Your task to perform on an android device: open chrome privacy settings Image 0: 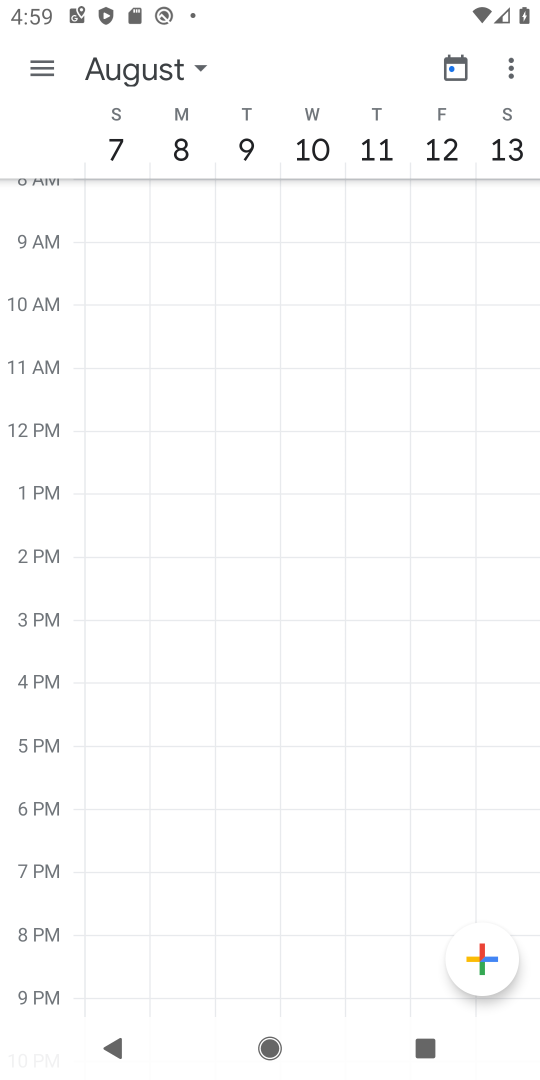
Step 0: press home button
Your task to perform on an android device: open chrome privacy settings Image 1: 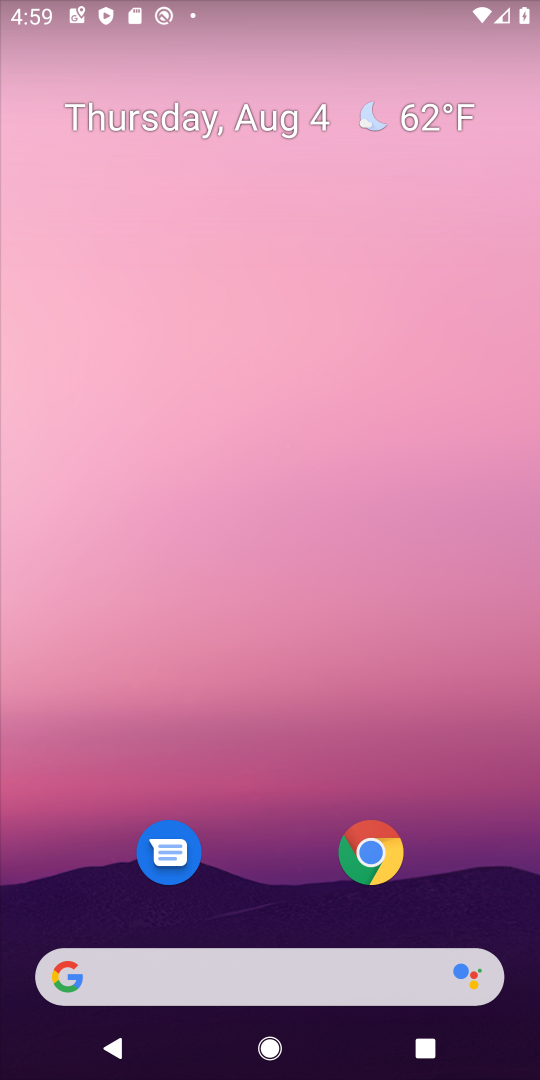
Step 1: click (378, 859)
Your task to perform on an android device: open chrome privacy settings Image 2: 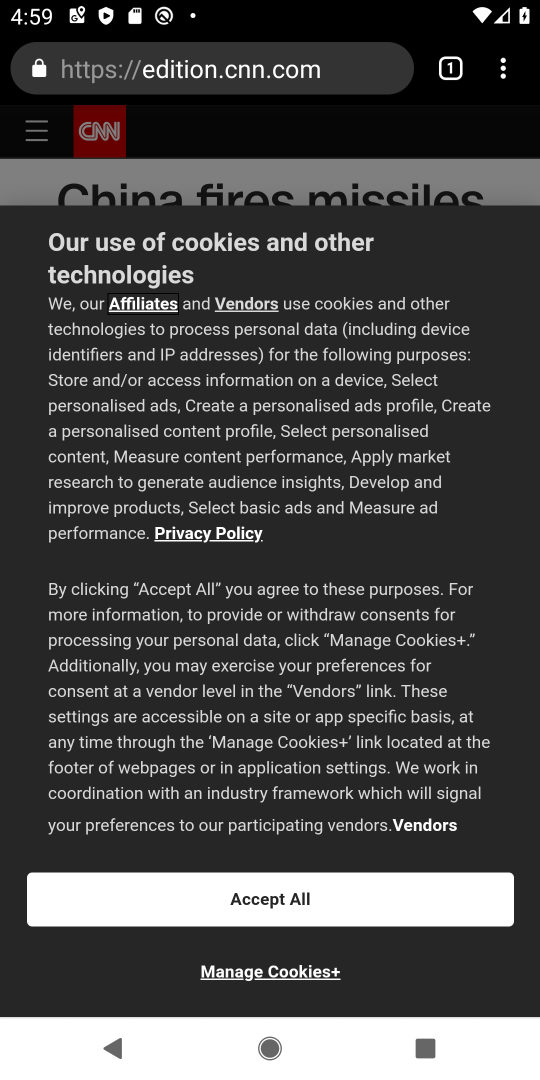
Step 2: click (508, 73)
Your task to perform on an android device: open chrome privacy settings Image 3: 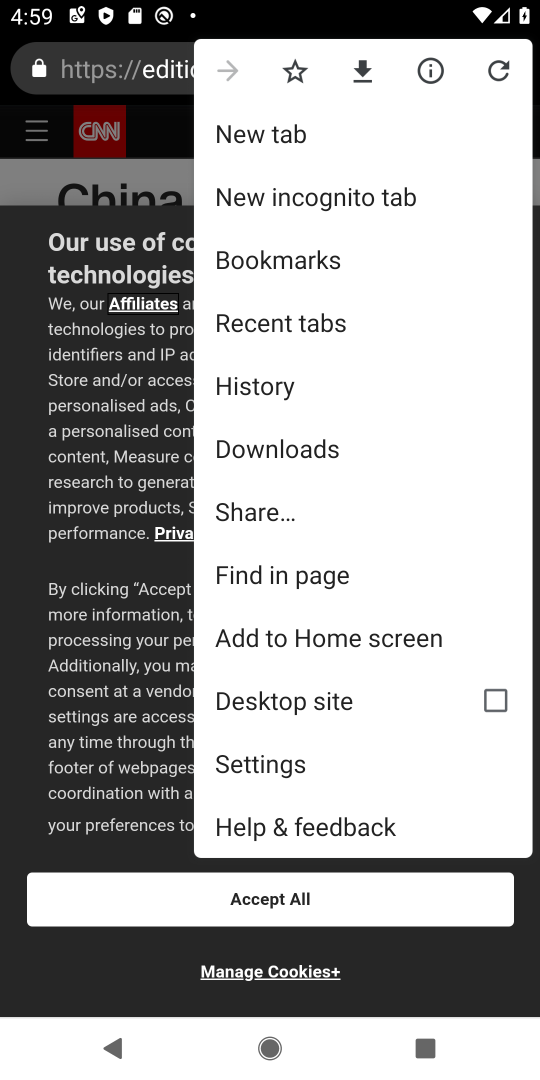
Step 3: click (272, 759)
Your task to perform on an android device: open chrome privacy settings Image 4: 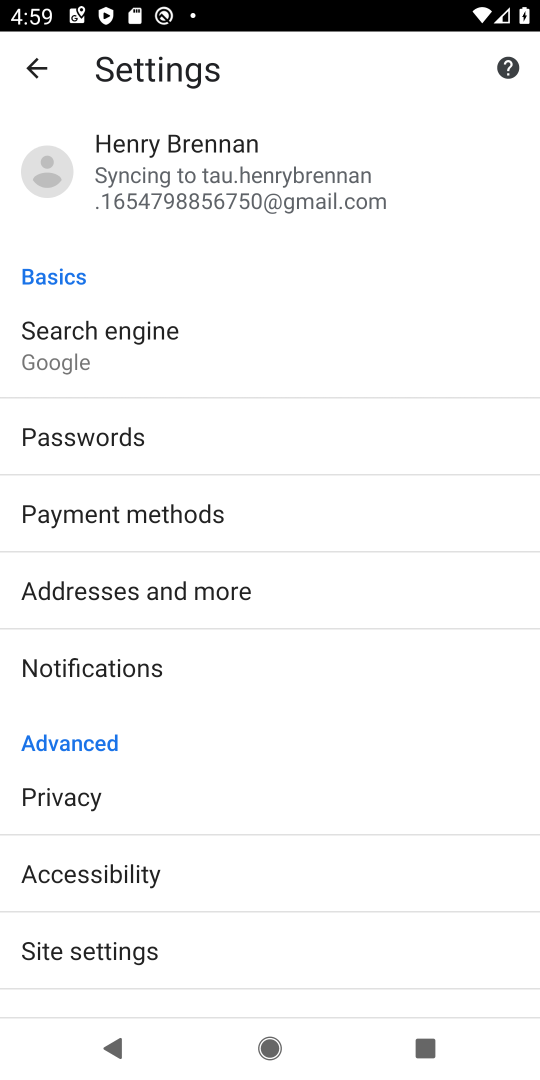
Step 4: click (80, 796)
Your task to perform on an android device: open chrome privacy settings Image 5: 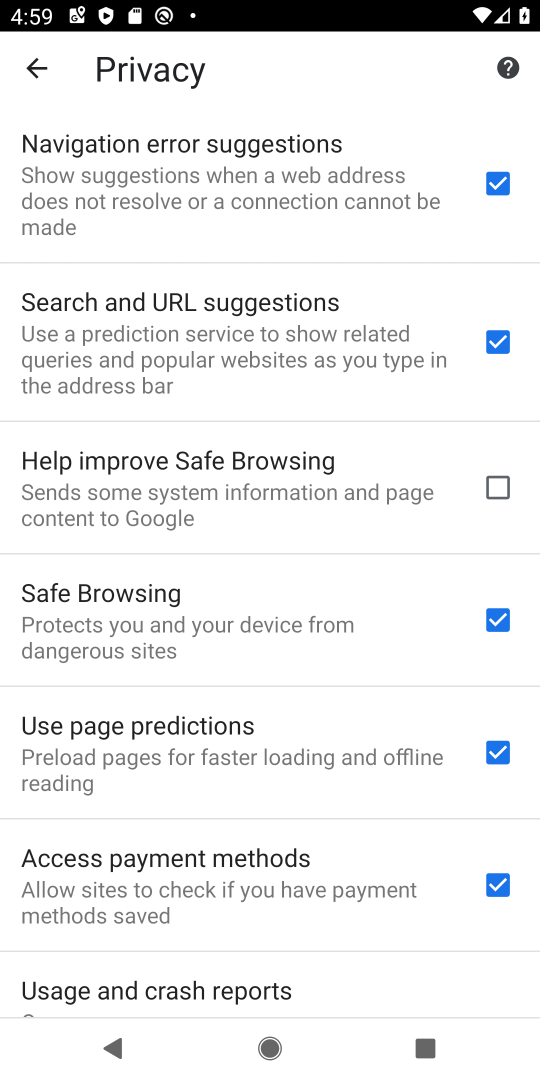
Step 5: task complete